Your task to perform on an android device: allow cookies in the chrome app Image 0: 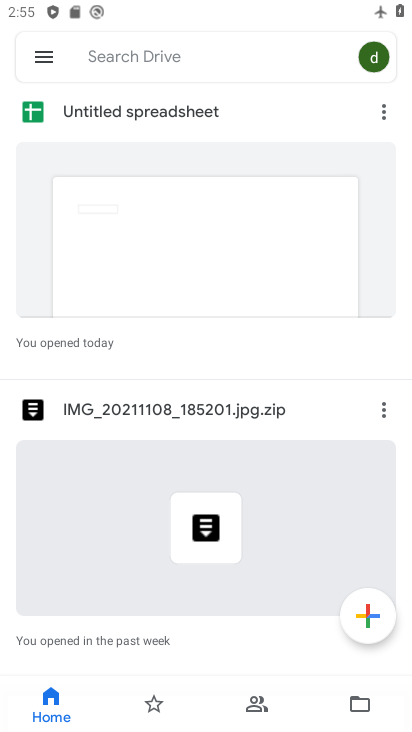
Step 0: press home button
Your task to perform on an android device: allow cookies in the chrome app Image 1: 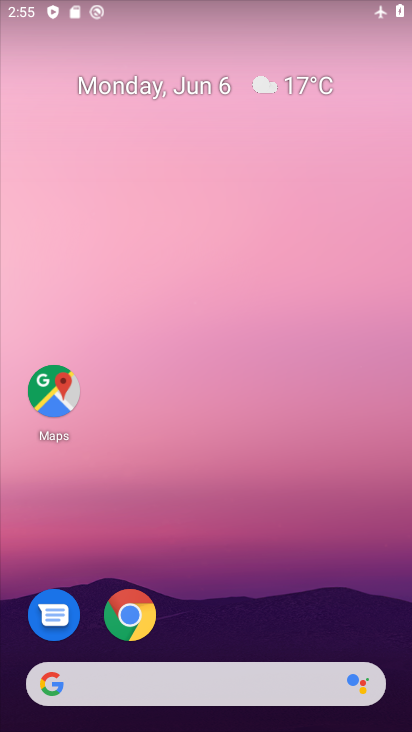
Step 1: click (132, 612)
Your task to perform on an android device: allow cookies in the chrome app Image 2: 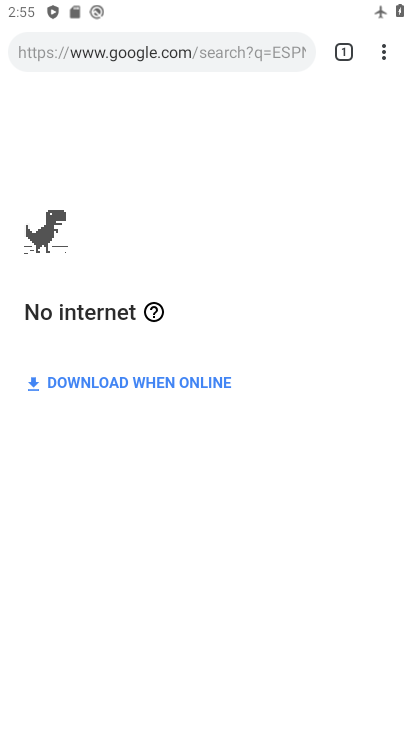
Step 2: click (380, 58)
Your task to perform on an android device: allow cookies in the chrome app Image 3: 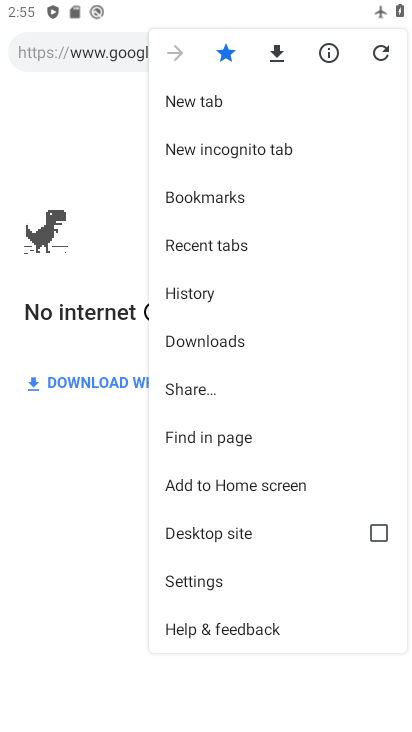
Step 3: click (211, 584)
Your task to perform on an android device: allow cookies in the chrome app Image 4: 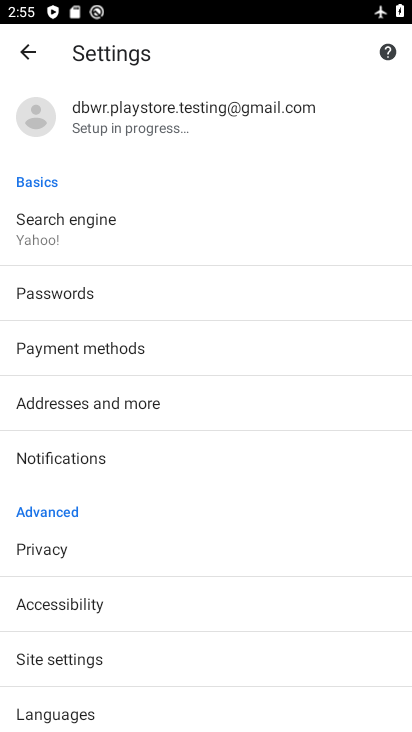
Step 4: drag from (142, 469) to (175, 258)
Your task to perform on an android device: allow cookies in the chrome app Image 5: 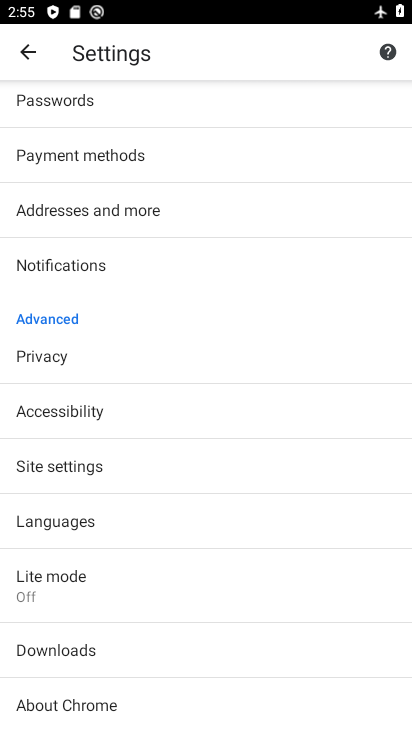
Step 5: click (88, 469)
Your task to perform on an android device: allow cookies in the chrome app Image 6: 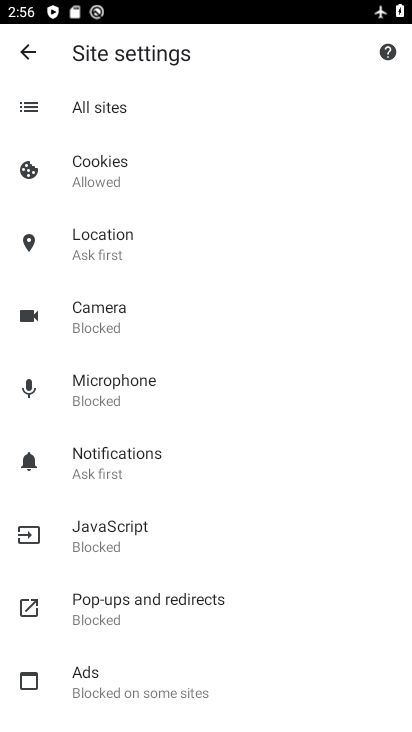
Step 6: click (119, 165)
Your task to perform on an android device: allow cookies in the chrome app Image 7: 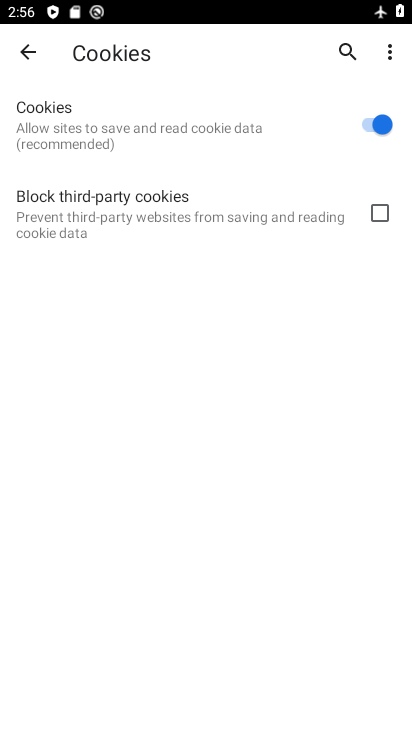
Step 7: task complete